Your task to perform on an android device: Open accessibility settings Image 0: 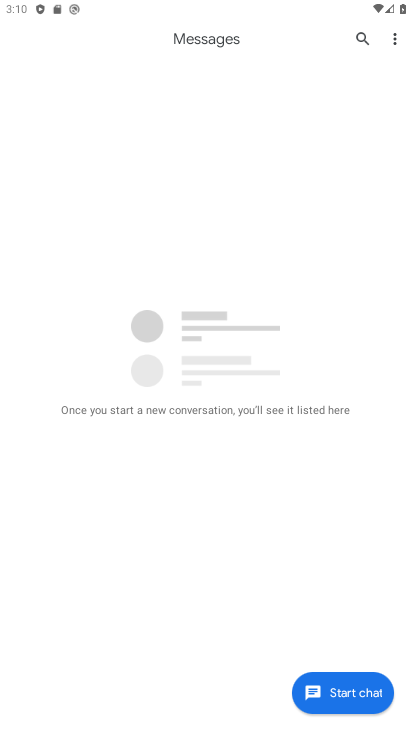
Step 0: press home button
Your task to perform on an android device: Open accessibility settings Image 1: 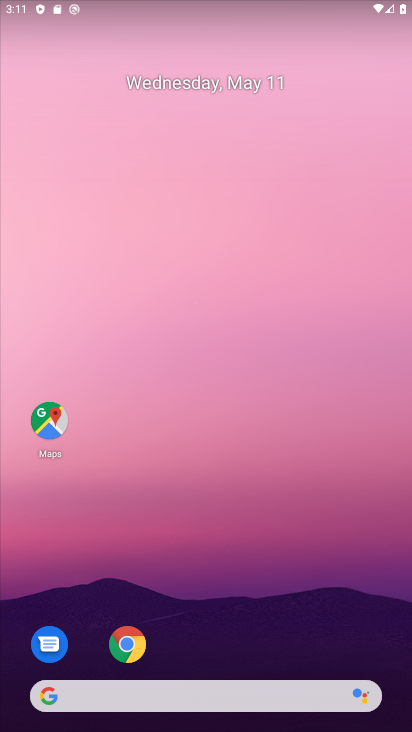
Step 1: drag from (237, 646) to (302, 161)
Your task to perform on an android device: Open accessibility settings Image 2: 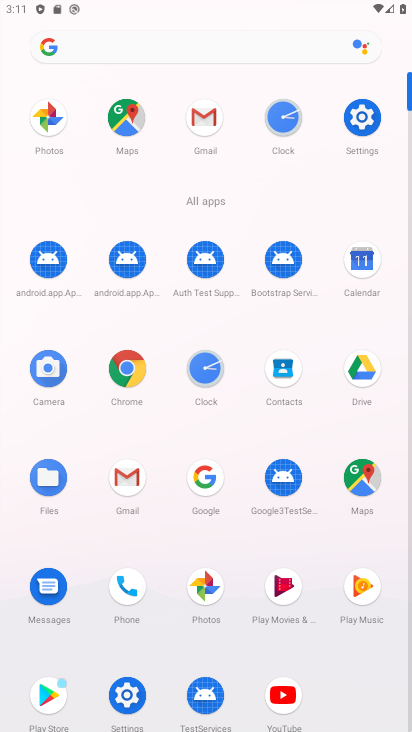
Step 2: click (360, 122)
Your task to perform on an android device: Open accessibility settings Image 3: 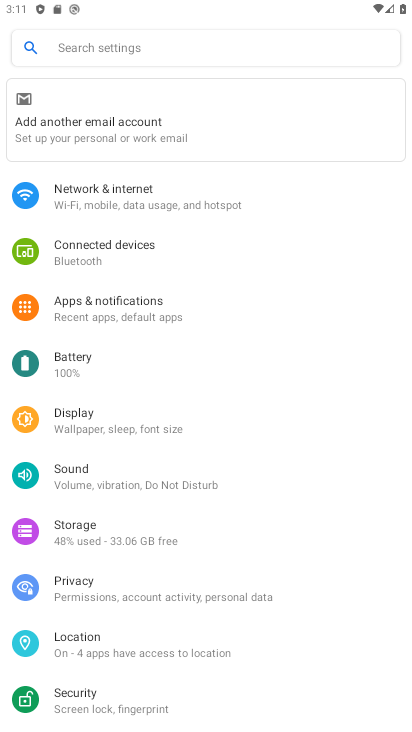
Step 3: drag from (80, 634) to (121, 224)
Your task to perform on an android device: Open accessibility settings Image 4: 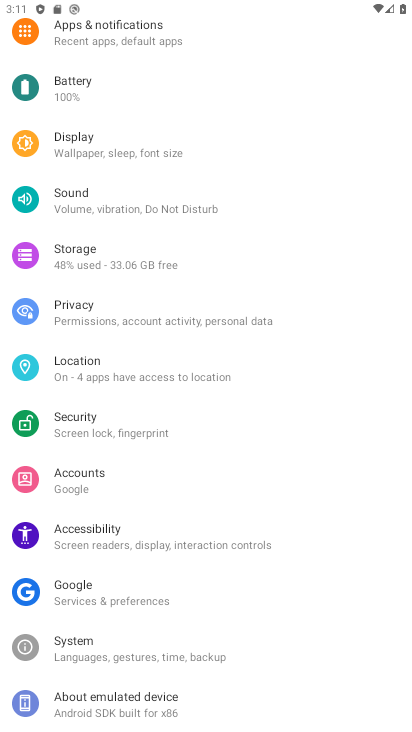
Step 4: click (121, 532)
Your task to perform on an android device: Open accessibility settings Image 5: 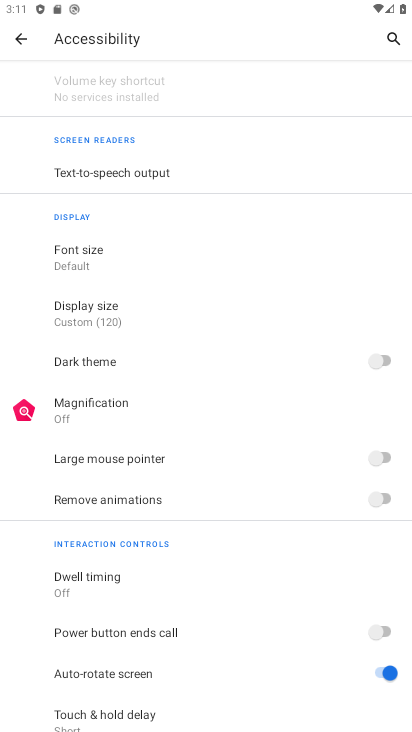
Step 5: task complete